Your task to perform on an android device: search for starred emails in the gmail app Image 0: 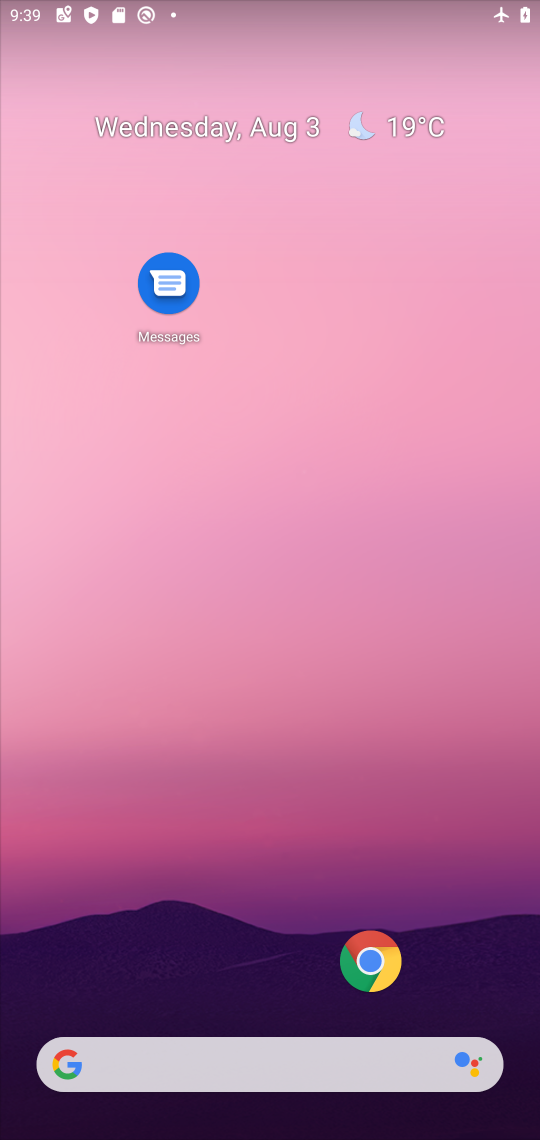
Step 0: drag from (165, 1028) to (101, 284)
Your task to perform on an android device: search for starred emails in the gmail app Image 1: 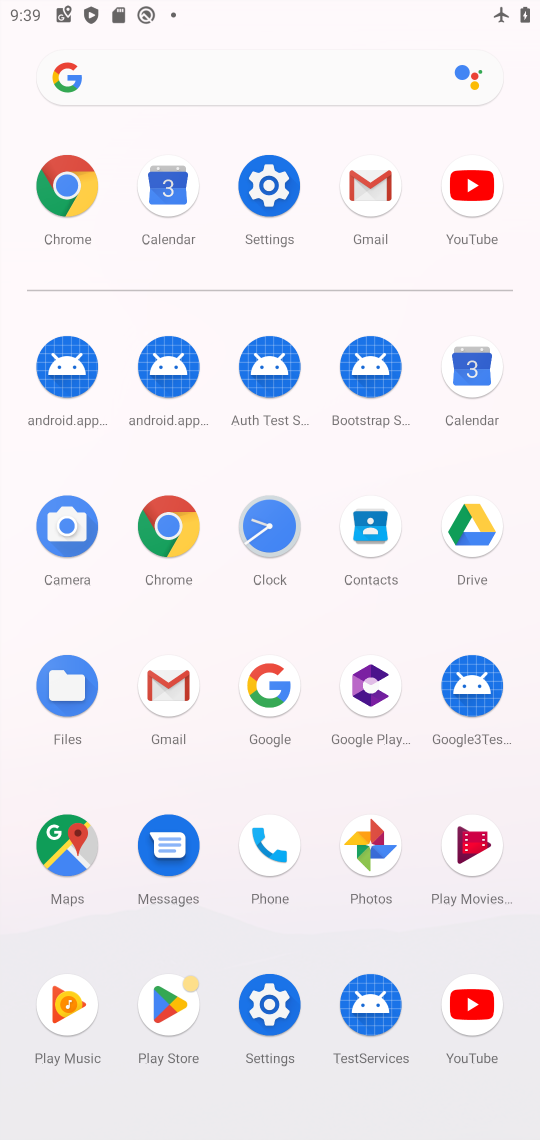
Step 1: click (152, 705)
Your task to perform on an android device: search for starred emails in the gmail app Image 2: 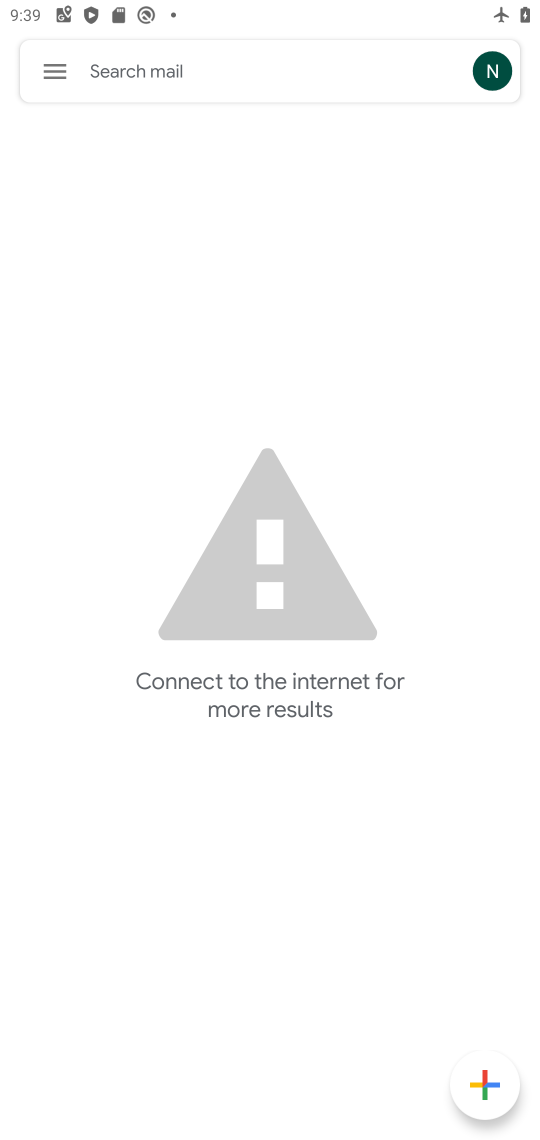
Step 2: click (57, 72)
Your task to perform on an android device: search for starred emails in the gmail app Image 3: 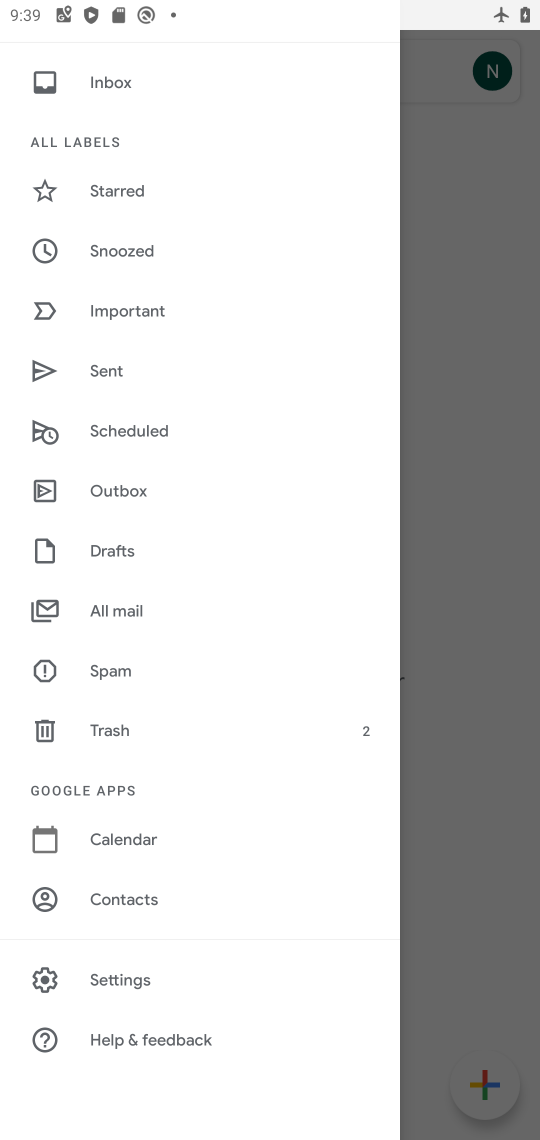
Step 3: click (127, 200)
Your task to perform on an android device: search for starred emails in the gmail app Image 4: 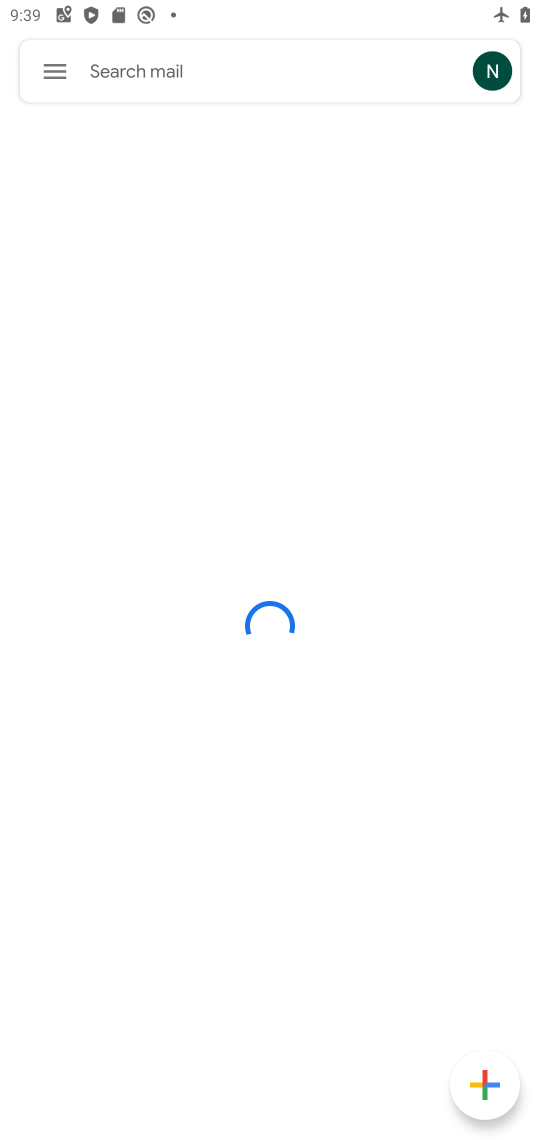
Step 4: task complete